Your task to perform on an android device: What's the weather going to be tomorrow? Image 0: 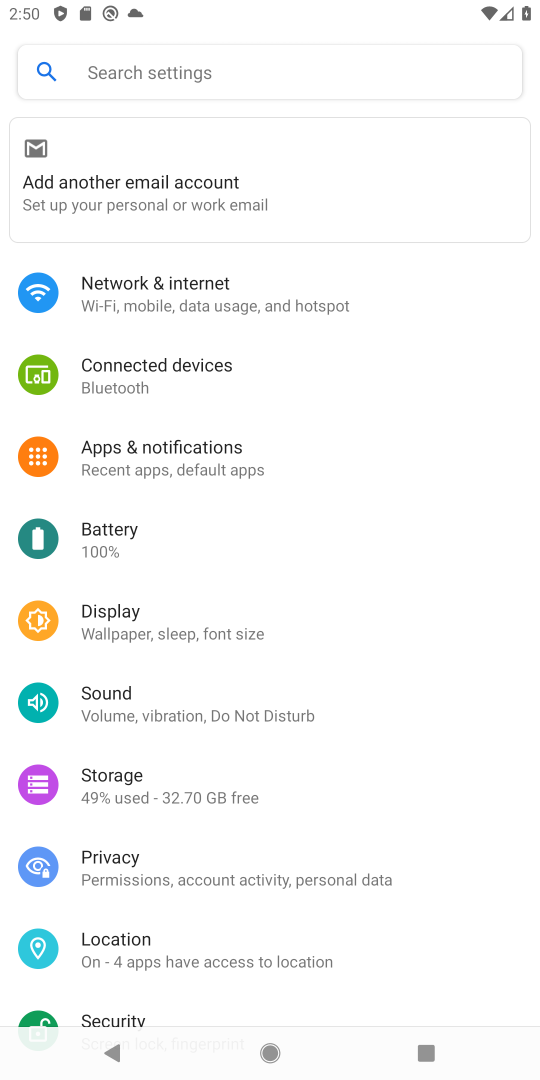
Step 0: press home button
Your task to perform on an android device: What's the weather going to be tomorrow? Image 1: 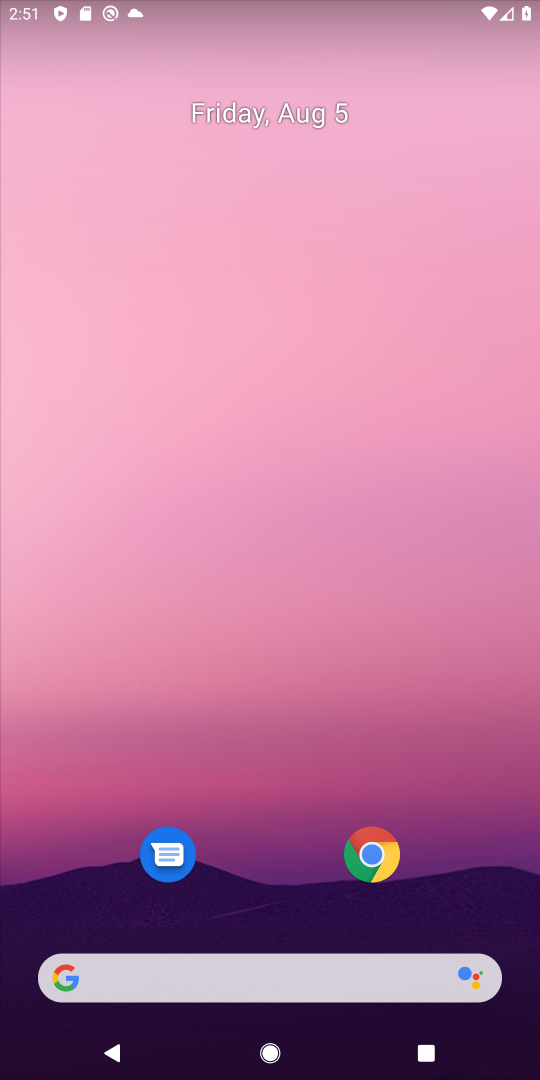
Step 1: click (101, 977)
Your task to perform on an android device: What's the weather going to be tomorrow? Image 2: 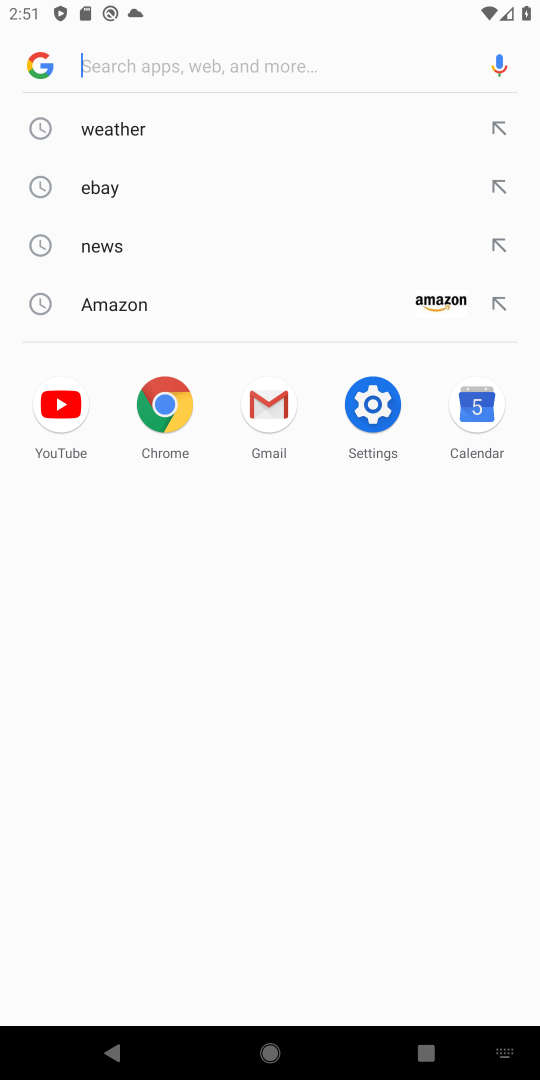
Step 2: type "What's the weather going to be tomorrow"
Your task to perform on an android device: What's the weather going to be tomorrow? Image 3: 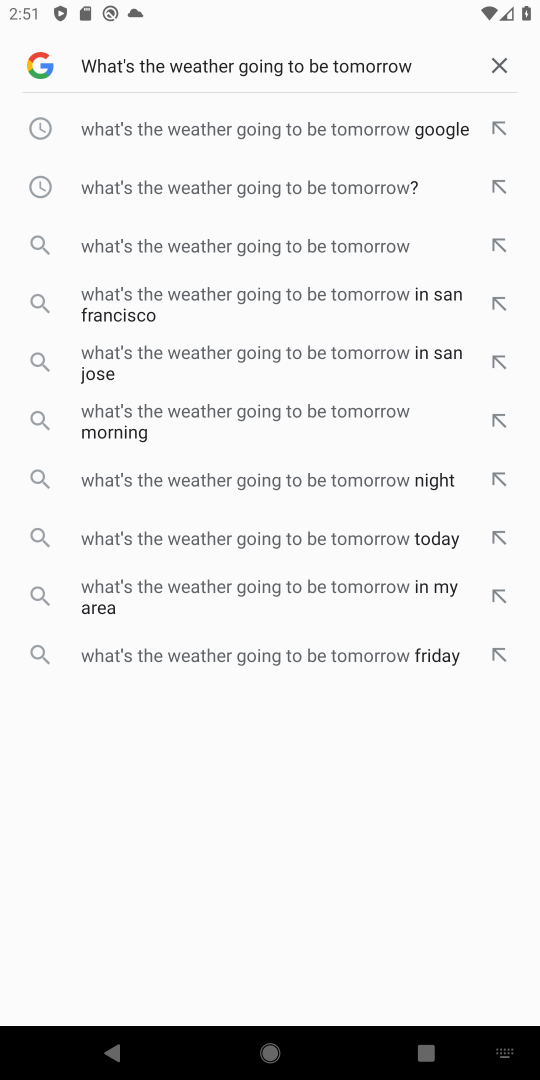
Step 3: task complete